Your task to perform on an android device: change notification settings in the gmail app Image 0: 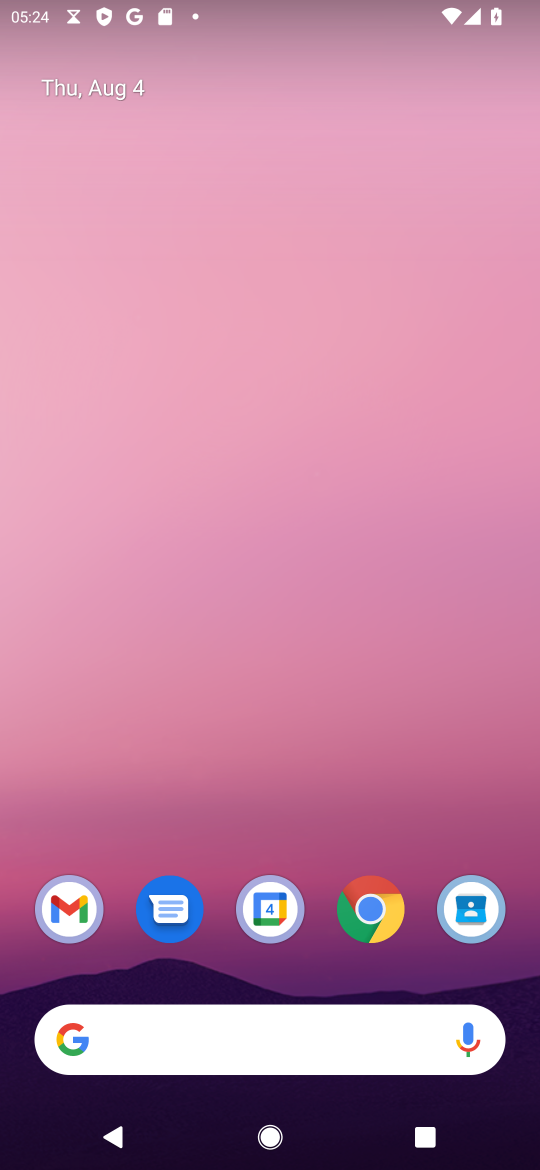
Step 0: press home button
Your task to perform on an android device: change notification settings in the gmail app Image 1: 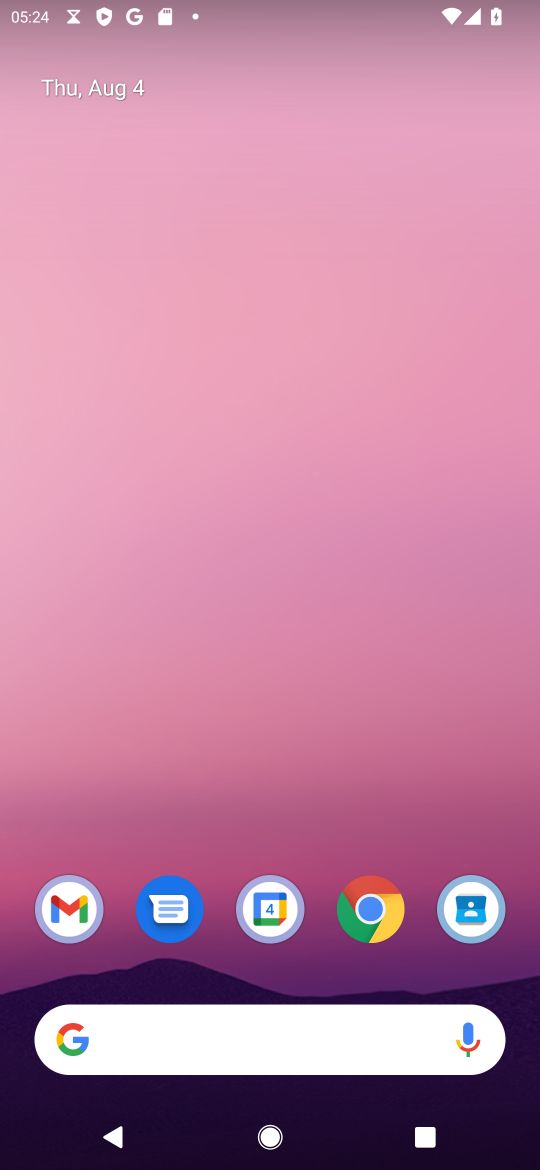
Step 1: click (78, 914)
Your task to perform on an android device: change notification settings in the gmail app Image 2: 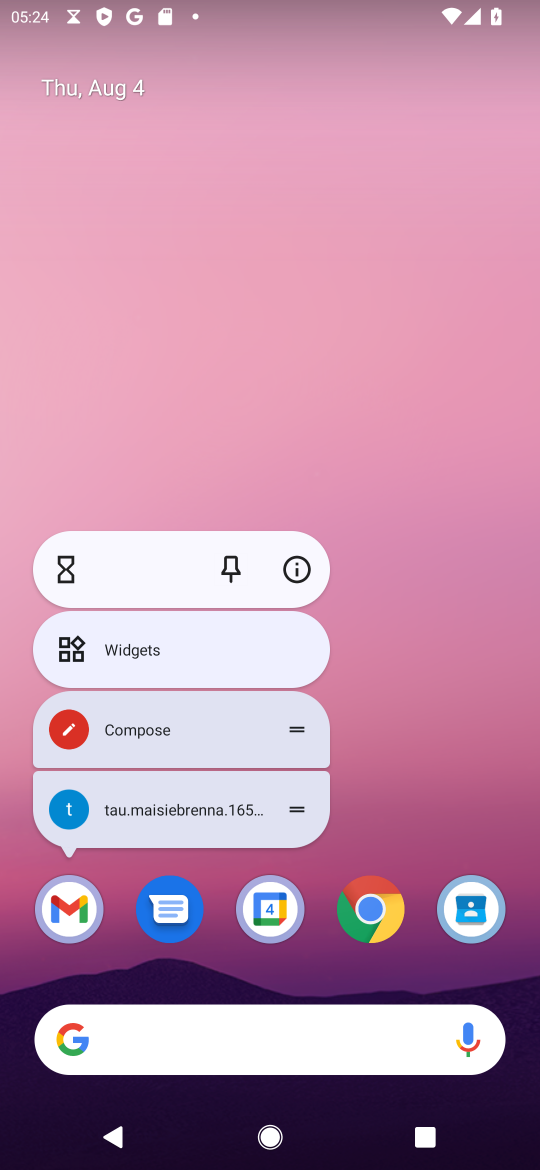
Step 2: click (67, 915)
Your task to perform on an android device: change notification settings in the gmail app Image 3: 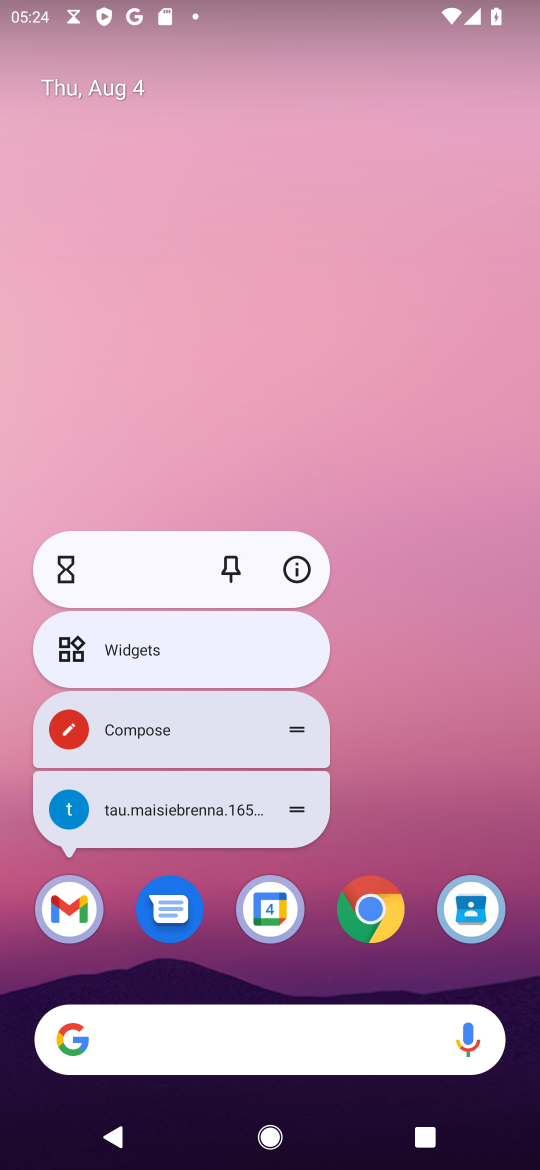
Step 3: click (65, 918)
Your task to perform on an android device: change notification settings in the gmail app Image 4: 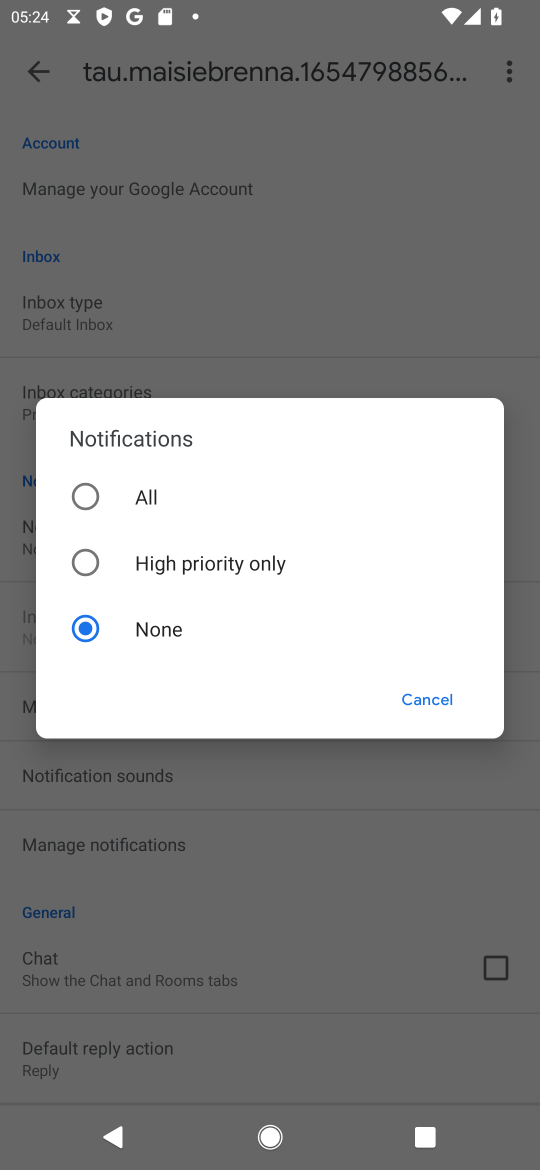
Step 4: click (425, 702)
Your task to perform on an android device: change notification settings in the gmail app Image 5: 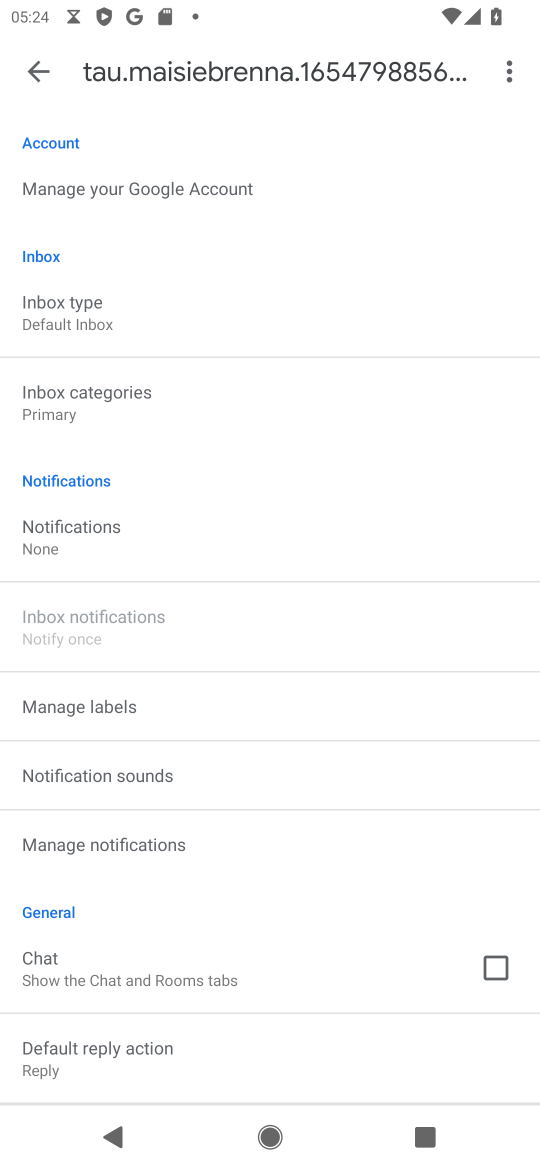
Step 5: click (90, 544)
Your task to perform on an android device: change notification settings in the gmail app Image 6: 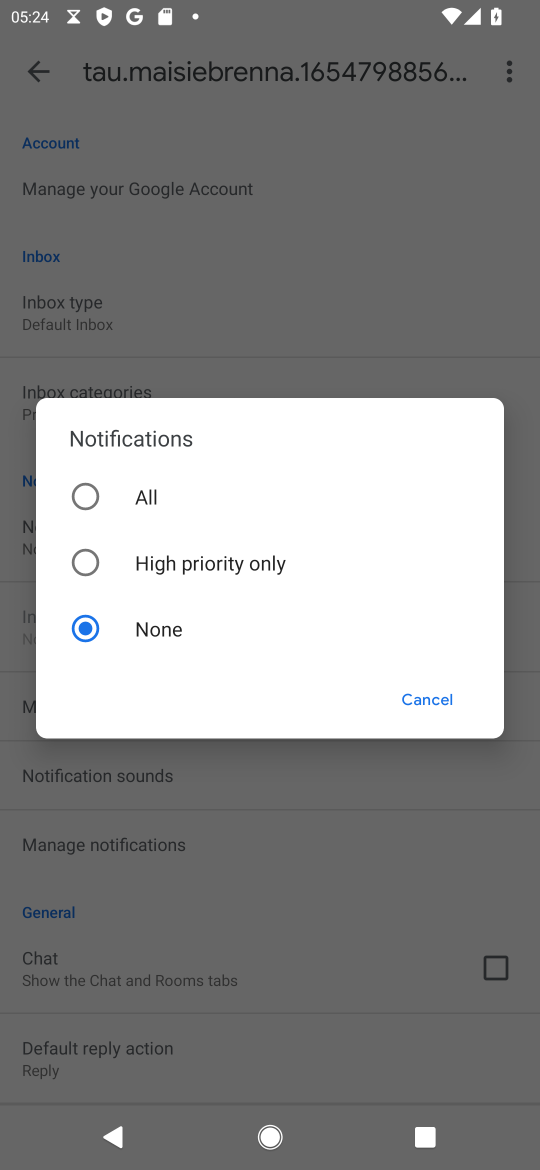
Step 6: click (82, 509)
Your task to perform on an android device: change notification settings in the gmail app Image 7: 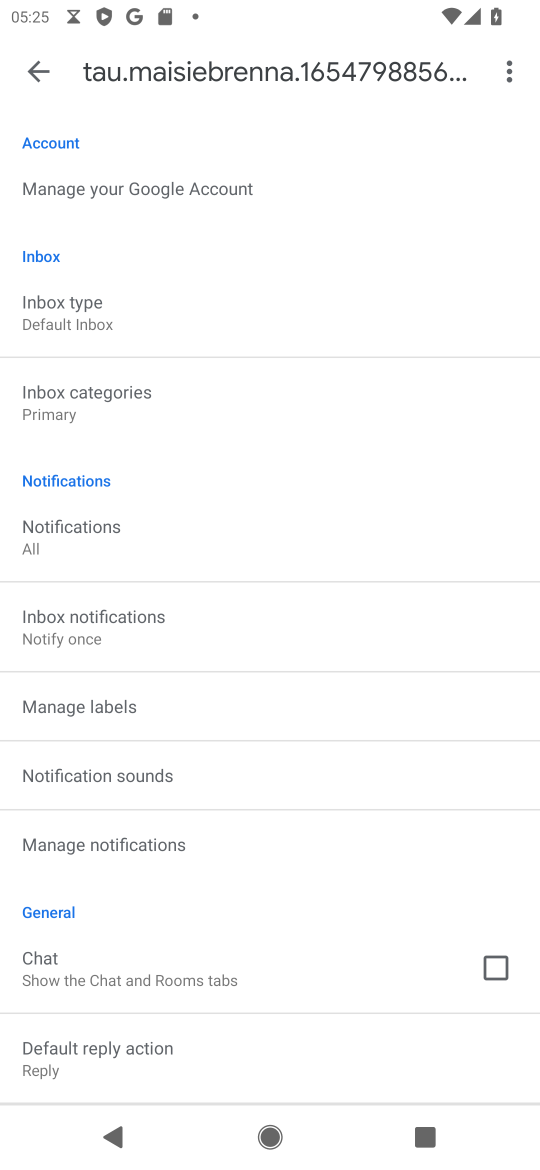
Step 7: task complete